Your task to perform on an android device: turn pop-ups off in chrome Image 0: 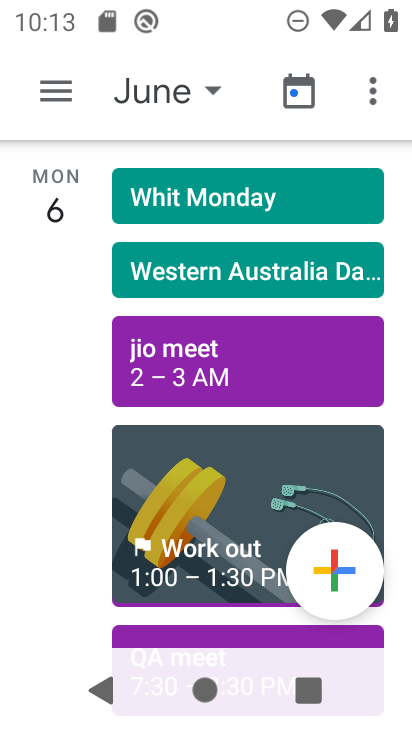
Step 0: press home button
Your task to perform on an android device: turn pop-ups off in chrome Image 1: 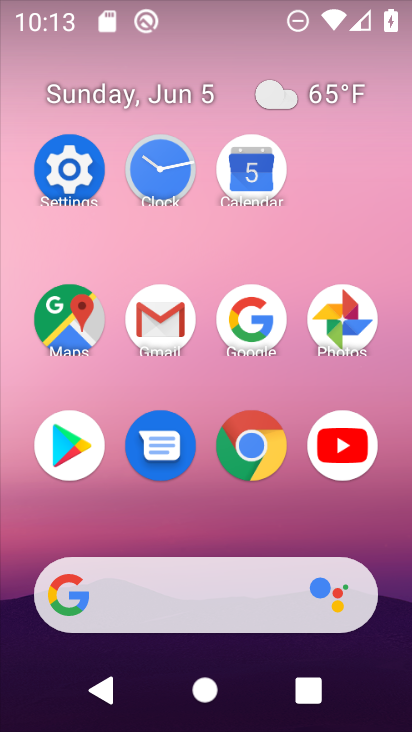
Step 1: click (247, 441)
Your task to perform on an android device: turn pop-ups off in chrome Image 2: 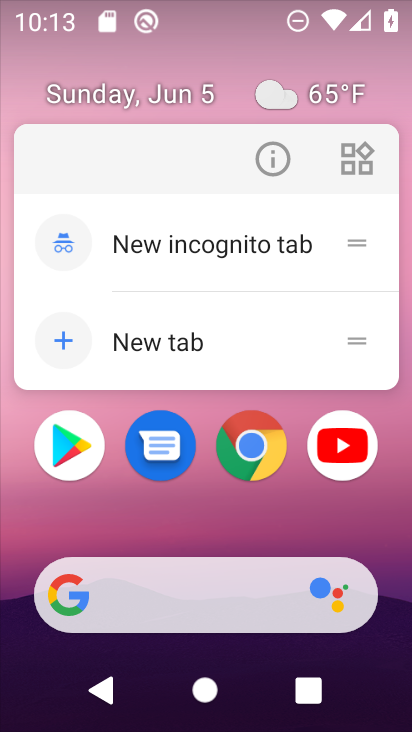
Step 2: click (262, 456)
Your task to perform on an android device: turn pop-ups off in chrome Image 3: 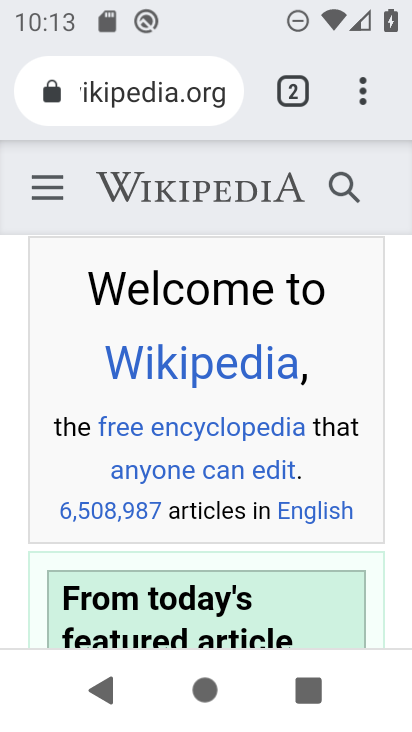
Step 3: click (375, 102)
Your task to perform on an android device: turn pop-ups off in chrome Image 4: 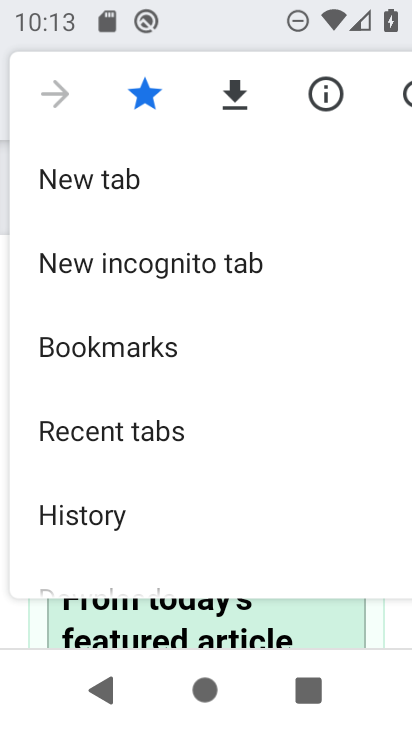
Step 4: drag from (207, 485) to (222, 147)
Your task to perform on an android device: turn pop-ups off in chrome Image 5: 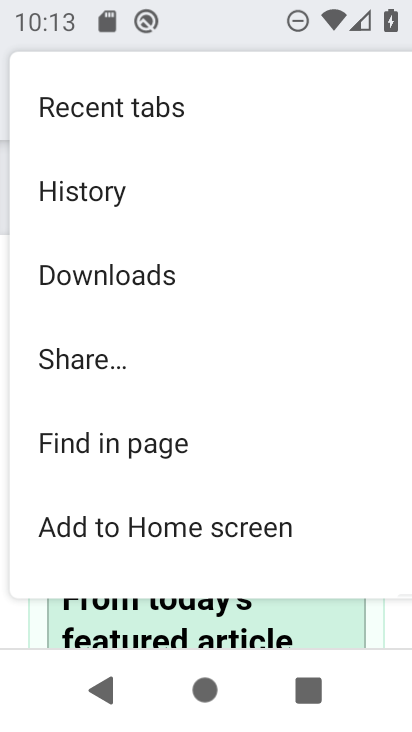
Step 5: drag from (167, 455) to (161, 131)
Your task to perform on an android device: turn pop-ups off in chrome Image 6: 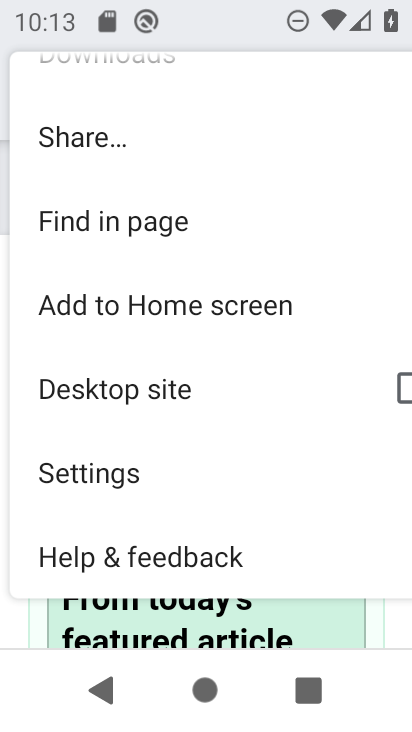
Step 6: click (103, 479)
Your task to perform on an android device: turn pop-ups off in chrome Image 7: 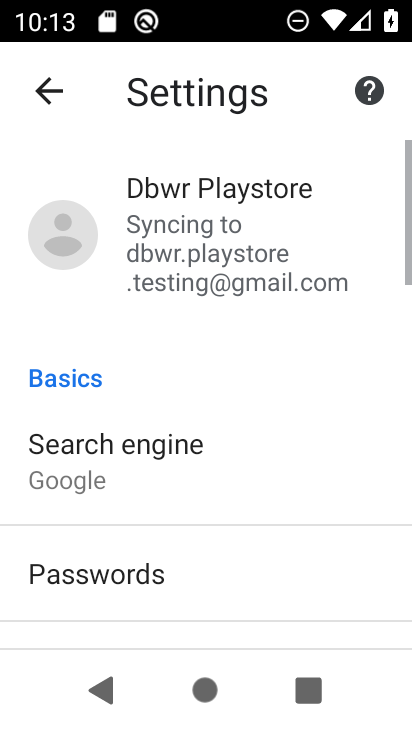
Step 7: drag from (195, 458) to (217, 111)
Your task to perform on an android device: turn pop-ups off in chrome Image 8: 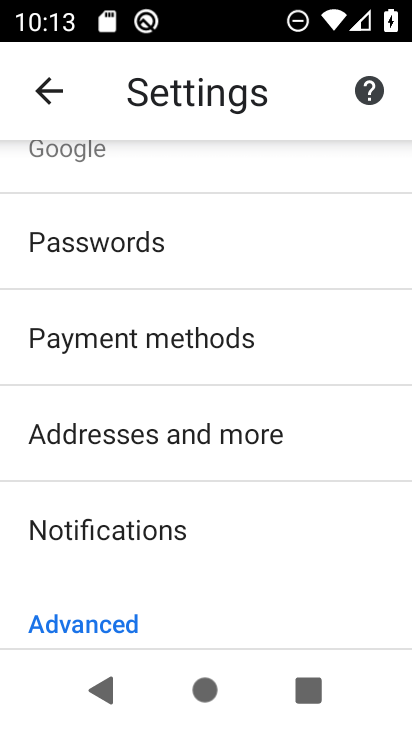
Step 8: drag from (205, 472) to (217, 9)
Your task to perform on an android device: turn pop-ups off in chrome Image 9: 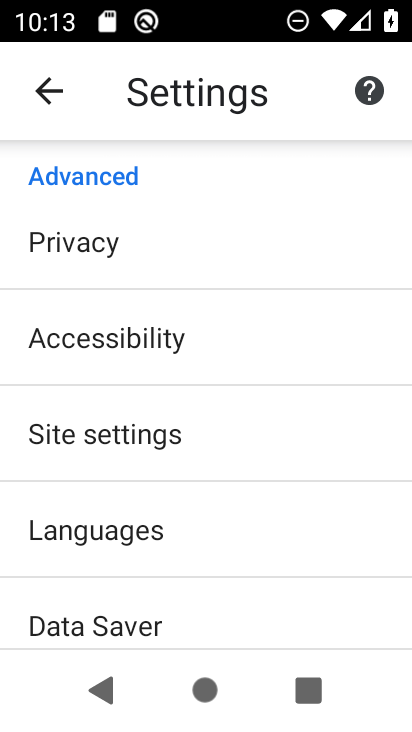
Step 9: click (210, 427)
Your task to perform on an android device: turn pop-ups off in chrome Image 10: 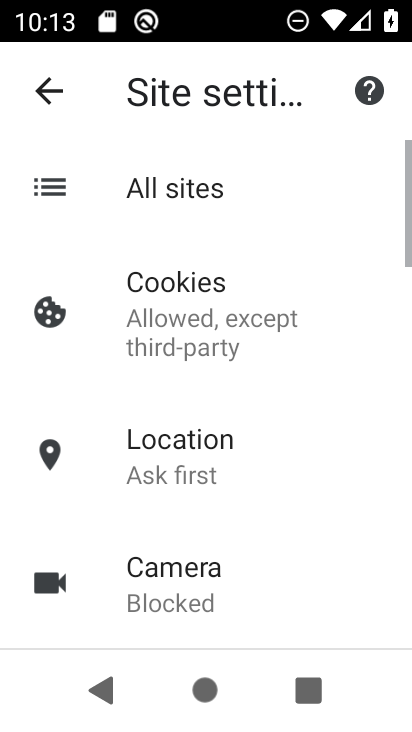
Step 10: drag from (276, 492) to (281, 108)
Your task to perform on an android device: turn pop-ups off in chrome Image 11: 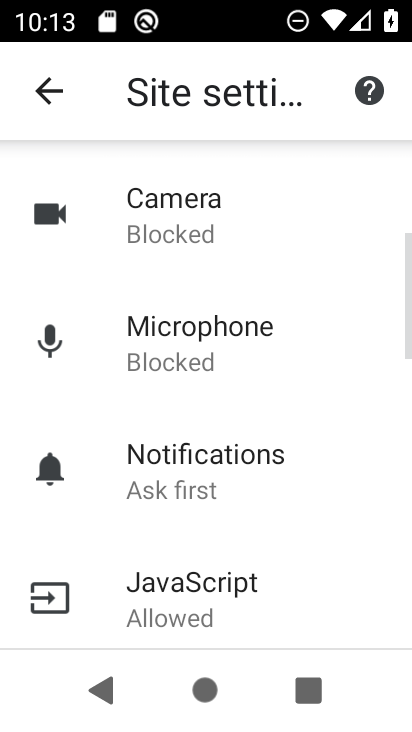
Step 11: drag from (309, 452) to (321, 184)
Your task to perform on an android device: turn pop-ups off in chrome Image 12: 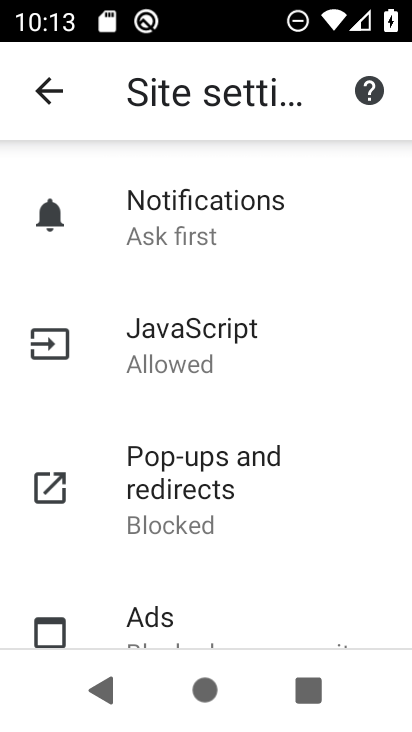
Step 12: click (254, 486)
Your task to perform on an android device: turn pop-ups off in chrome Image 13: 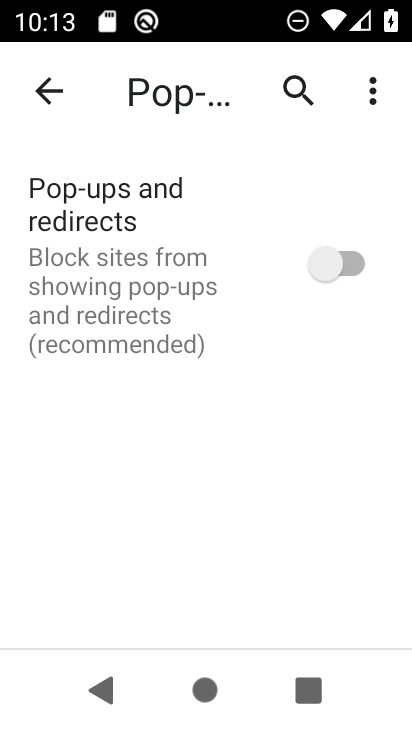
Step 13: task complete